Your task to perform on an android device: Toggle the flashlight Image 0: 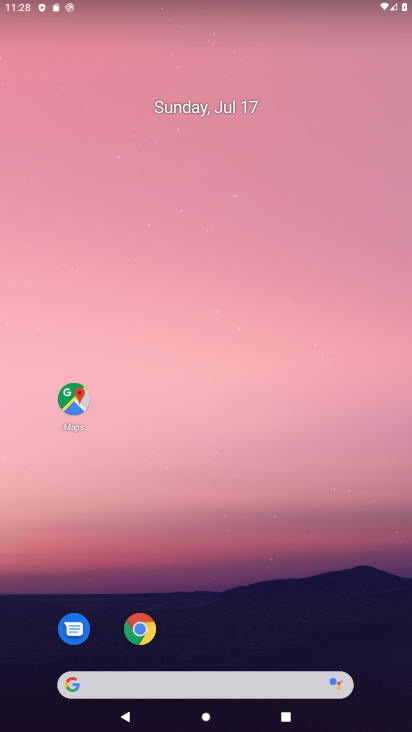
Step 0: press home button
Your task to perform on an android device: Toggle the flashlight Image 1: 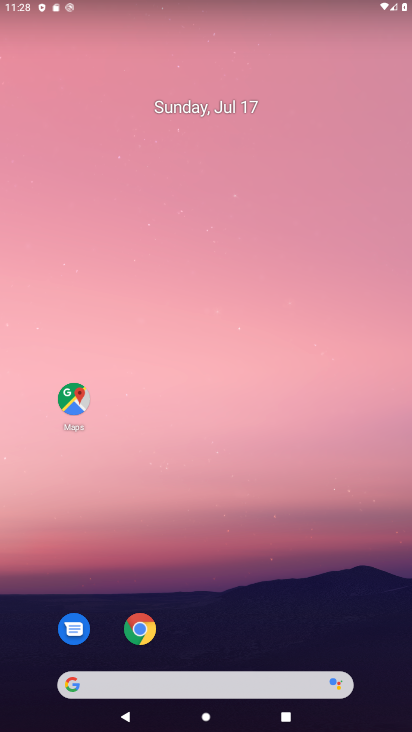
Step 1: task complete